Your task to perform on an android device: Open Chrome and go to the settings page Image 0: 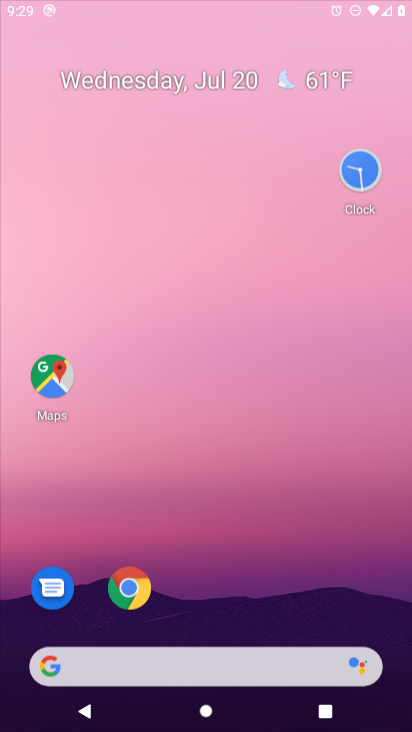
Step 0: click (125, 586)
Your task to perform on an android device: Open Chrome and go to the settings page Image 1: 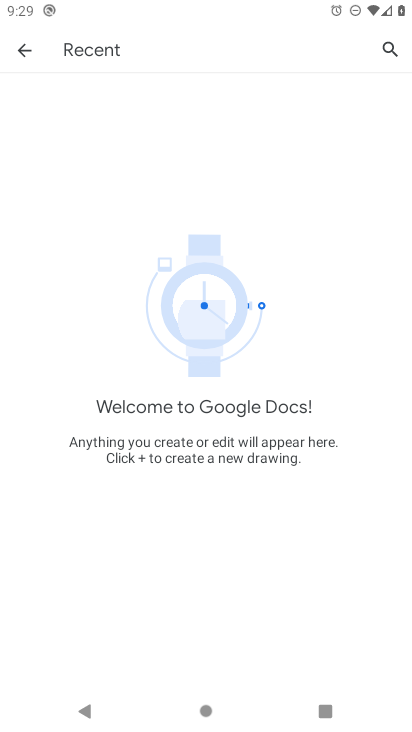
Step 1: press home button
Your task to perform on an android device: Open Chrome and go to the settings page Image 2: 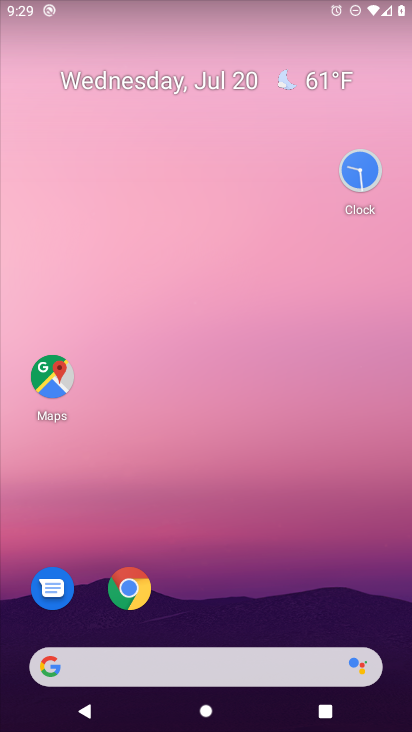
Step 2: click (128, 586)
Your task to perform on an android device: Open Chrome and go to the settings page Image 3: 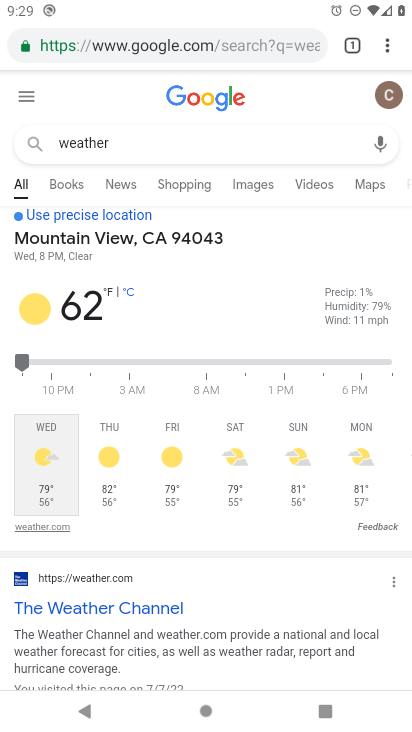
Step 3: click (384, 27)
Your task to perform on an android device: Open Chrome and go to the settings page Image 4: 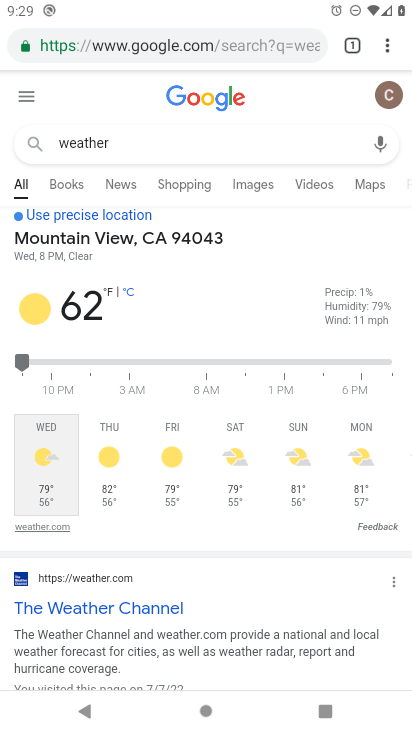
Step 4: click (387, 41)
Your task to perform on an android device: Open Chrome and go to the settings page Image 5: 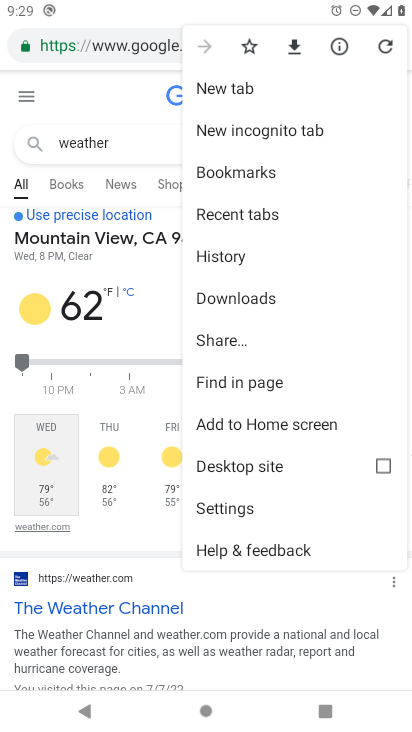
Step 5: click (218, 511)
Your task to perform on an android device: Open Chrome and go to the settings page Image 6: 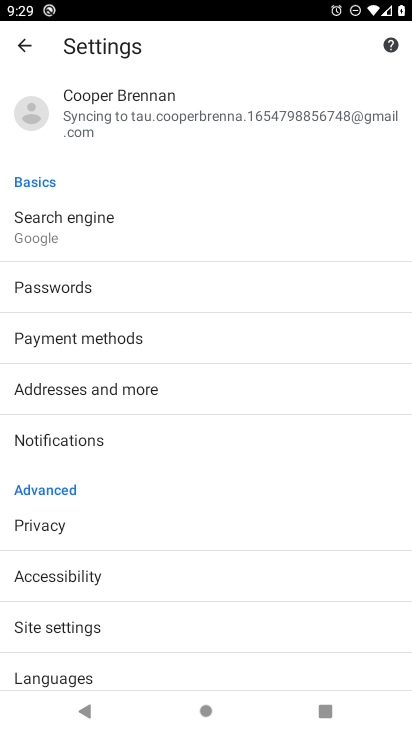
Step 6: task complete